Your task to perform on an android device: Open battery settings Image 0: 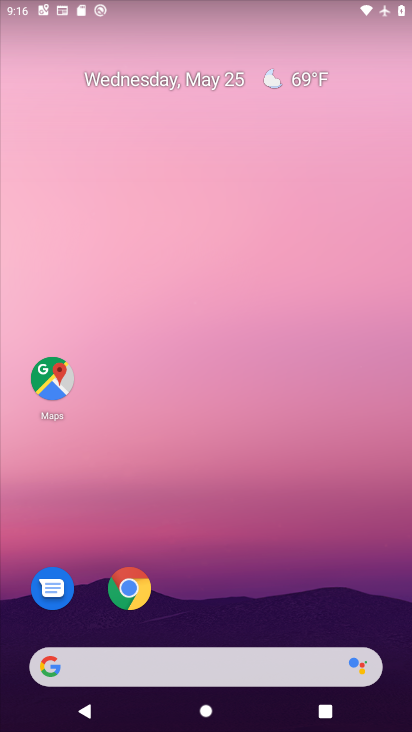
Step 0: drag from (349, 610) to (380, 165)
Your task to perform on an android device: Open battery settings Image 1: 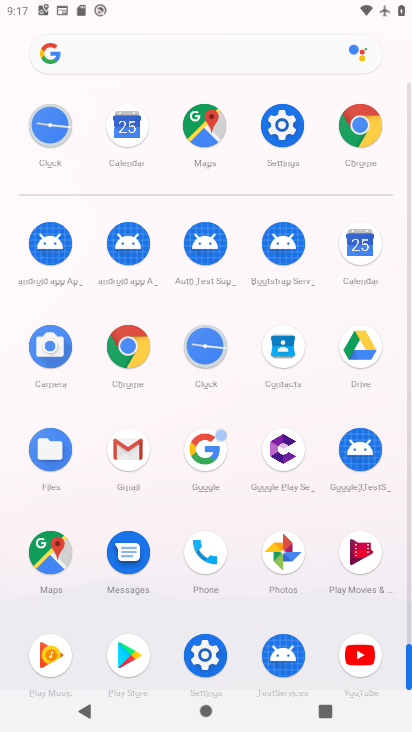
Step 1: click (288, 141)
Your task to perform on an android device: Open battery settings Image 2: 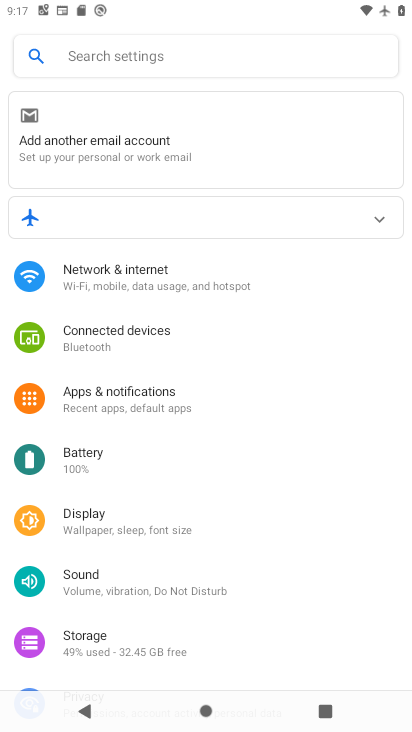
Step 2: drag from (299, 517) to (302, 437)
Your task to perform on an android device: Open battery settings Image 3: 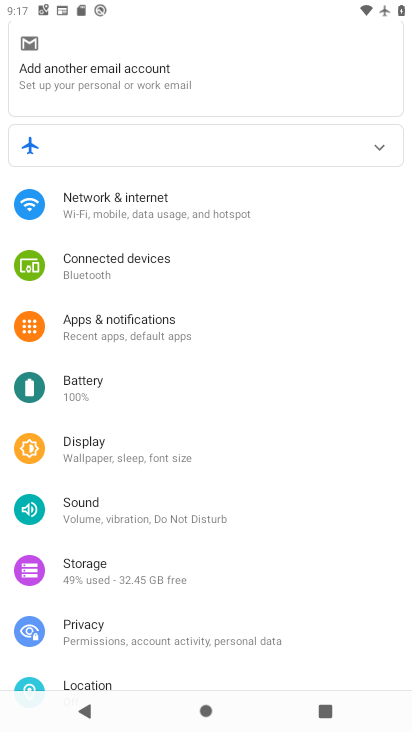
Step 3: drag from (312, 545) to (329, 445)
Your task to perform on an android device: Open battery settings Image 4: 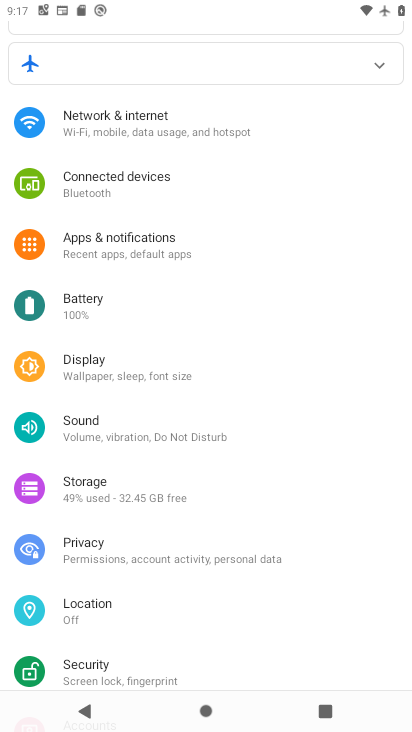
Step 4: drag from (331, 567) to (347, 474)
Your task to perform on an android device: Open battery settings Image 5: 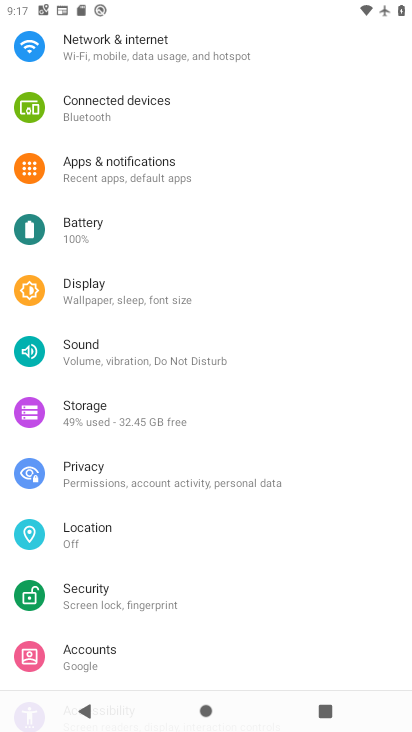
Step 5: drag from (326, 591) to (343, 503)
Your task to perform on an android device: Open battery settings Image 6: 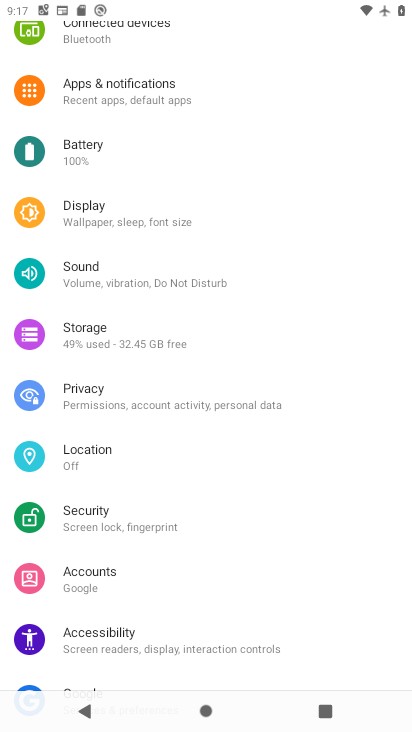
Step 6: drag from (342, 585) to (346, 499)
Your task to perform on an android device: Open battery settings Image 7: 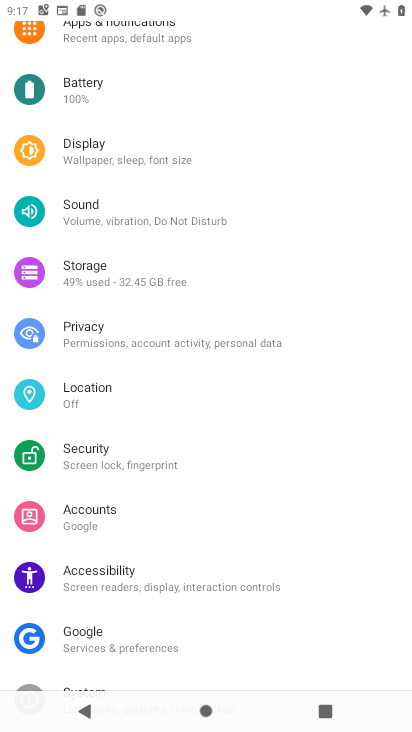
Step 7: drag from (334, 598) to (335, 514)
Your task to perform on an android device: Open battery settings Image 8: 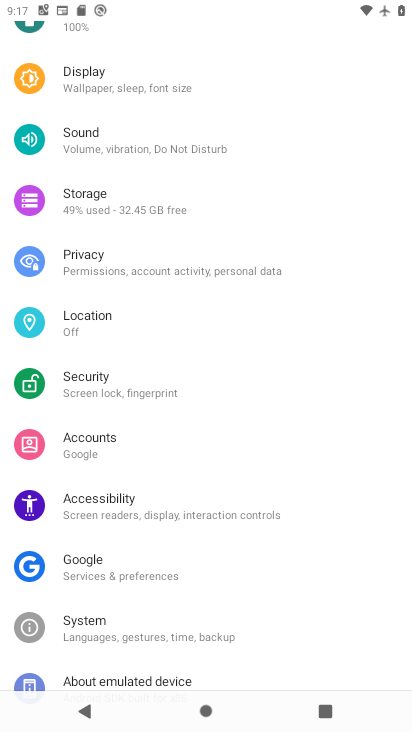
Step 8: drag from (336, 618) to (343, 501)
Your task to perform on an android device: Open battery settings Image 9: 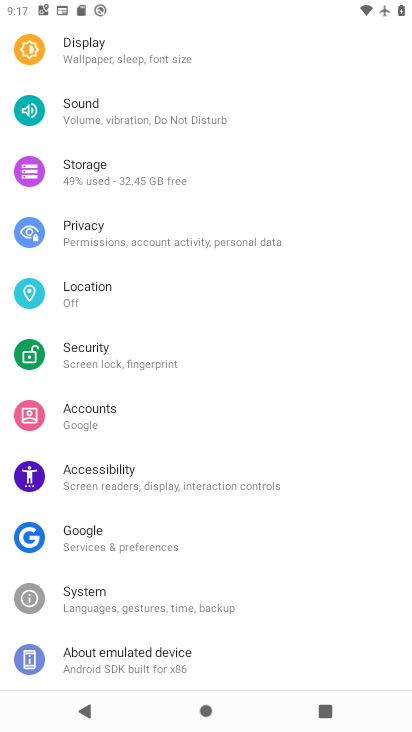
Step 9: drag from (315, 370) to (319, 466)
Your task to perform on an android device: Open battery settings Image 10: 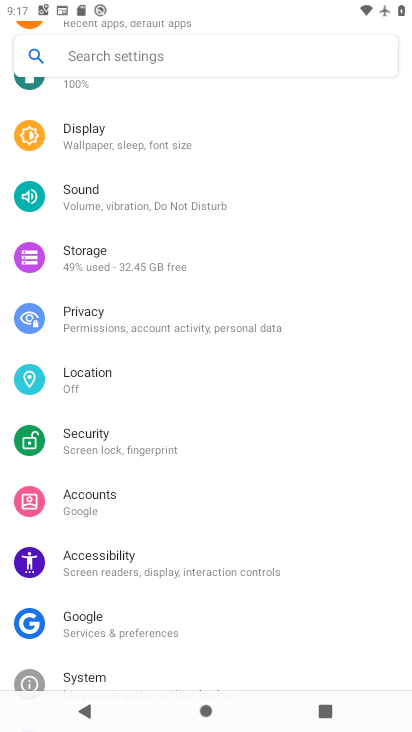
Step 10: drag from (321, 373) to (325, 452)
Your task to perform on an android device: Open battery settings Image 11: 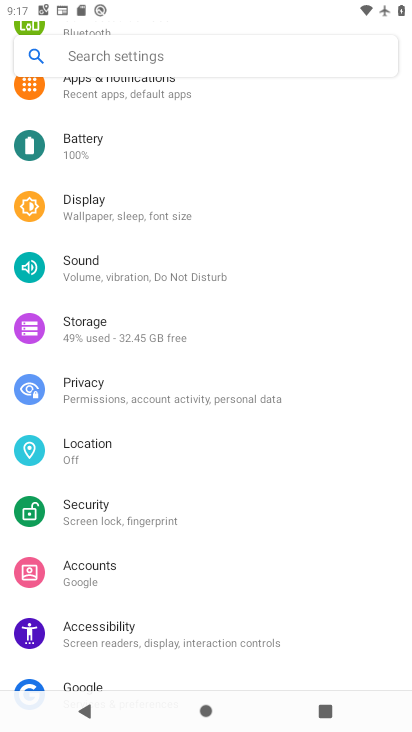
Step 11: drag from (328, 372) to (316, 476)
Your task to perform on an android device: Open battery settings Image 12: 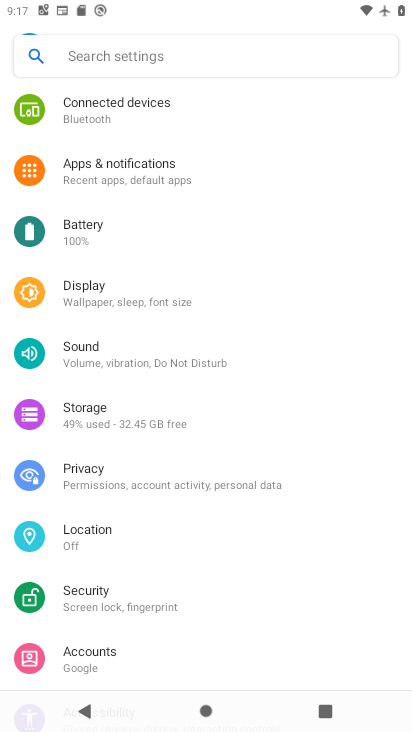
Step 12: drag from (323, 368) to (323, 446)
Your task to perform on an android device: Open battery settings Image 13: 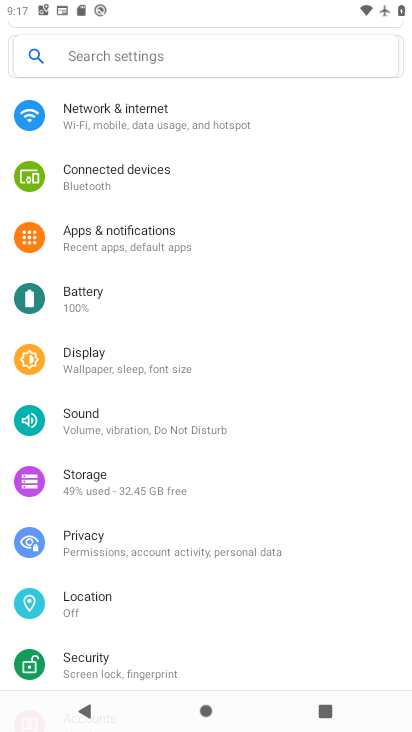
Step 13: drag from (322, 370) to (317, 462)
Your task to perform on an android device: Open battery settings Image 14: 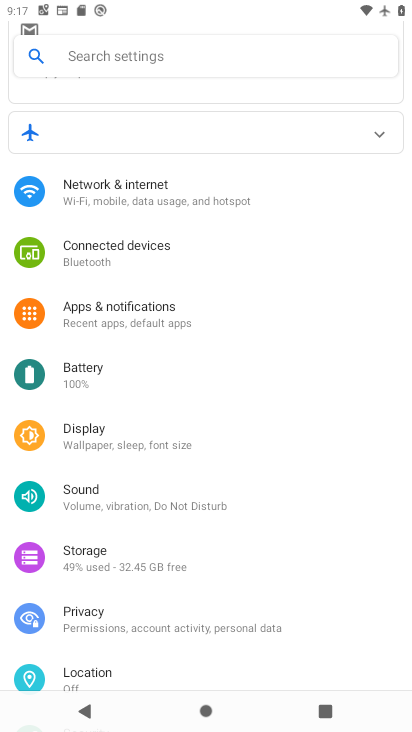
Step 14: drag from (307, 355) to (302, 464)
Your task to perform on an android device: Open battery settings Image 15: 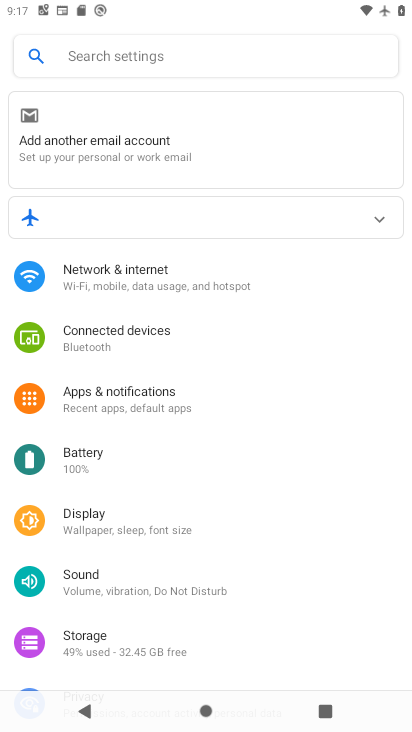
Step 15: drag from (302, 342) to (291, 454)
Your task to perform on an android device: Open battery settings Image 16: 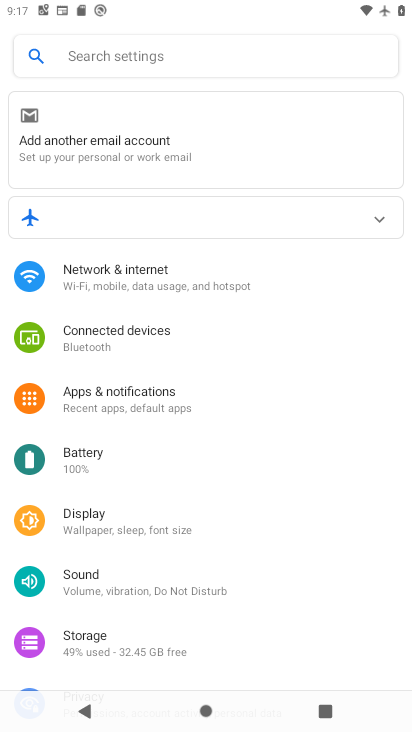
Step 16: click (139, 465)
Your task to perform on an android device: Open battery settings Image 17: 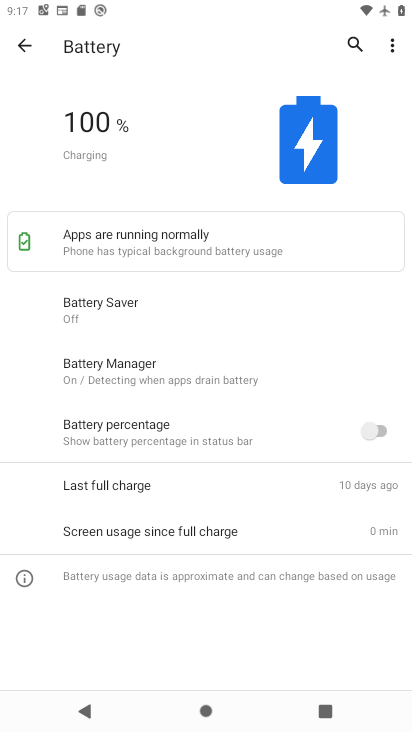
Step 17: task complete